Your task to perform on an android device: remove spam from my inbox in the gmail app Image 0: 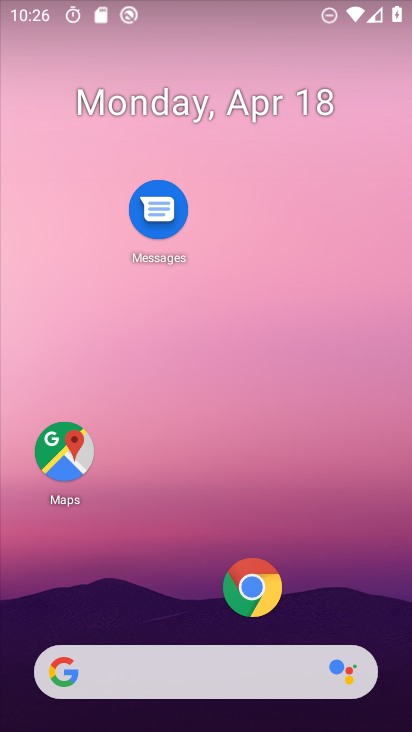
Step 0: drag from (174, 599) to (277, 67)
Your task to perform on an android device: remove spam from my inbox in the gmail app Image 1: 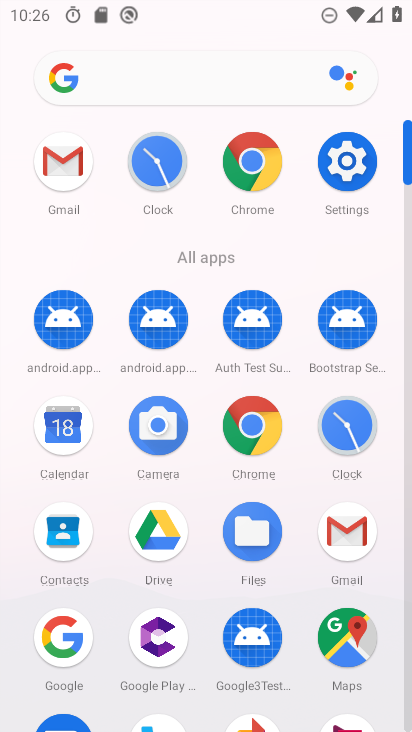
Step 1: click (354, 547)
Your task to perform on an android device: remove spam from my inbox in the gmail app Image 2: 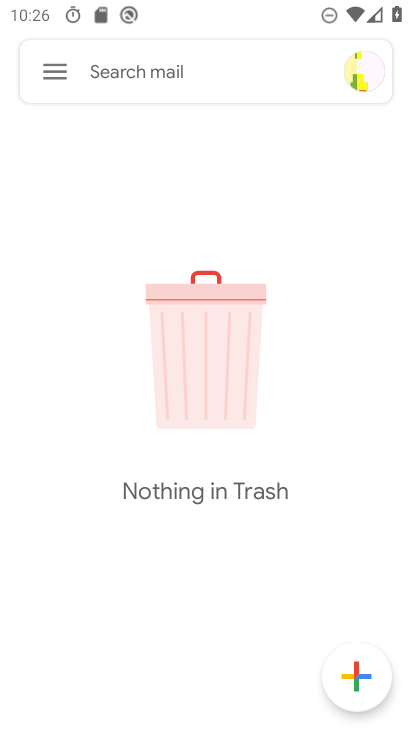
Step 2: click (63, 67)
Your task to perform on an android device: remove spam from my inbox in the gmail app Image 3: 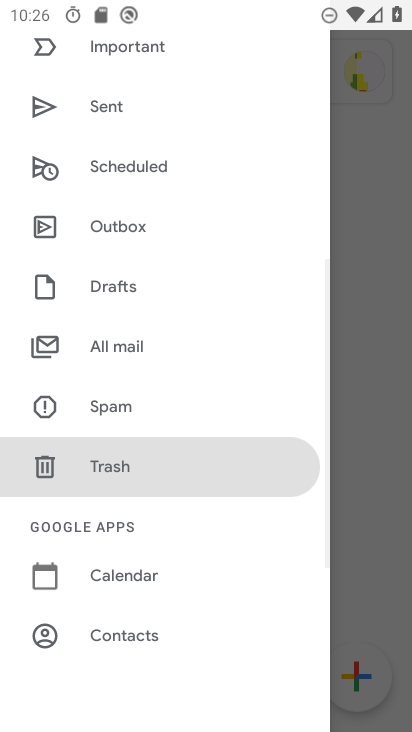
Step 3: click (91, 410)
Your task to perform on an android device: remove spam from my inbox in the gmail app Image 4: 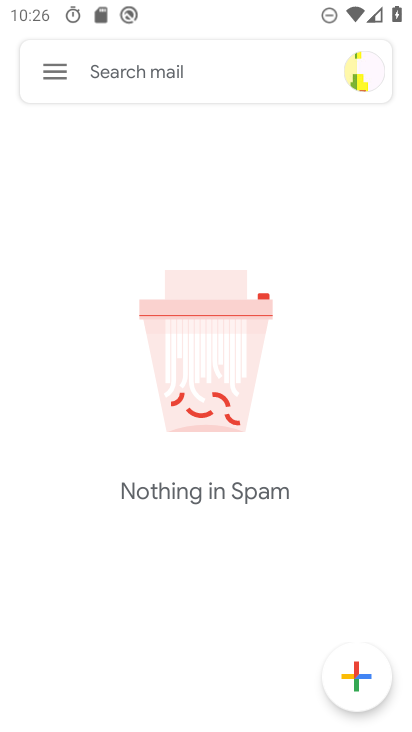
Step 4: task complete